Your task to perform on an android device: Open Youtube and go to "Your channel" Image 0: 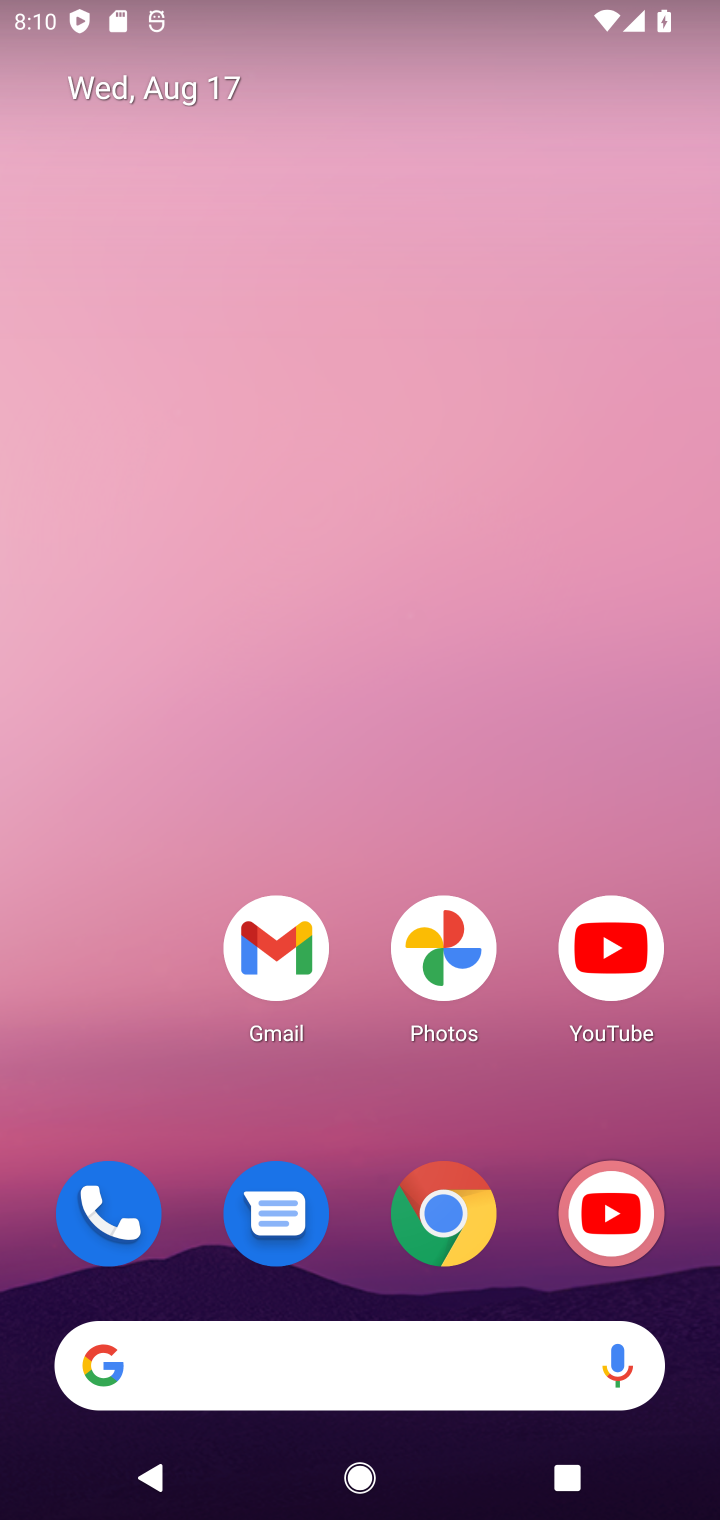
Step 0: click (613, 1244)
Your task to perform on an android device: Open Youtube and go to "Your channel" Image 1: 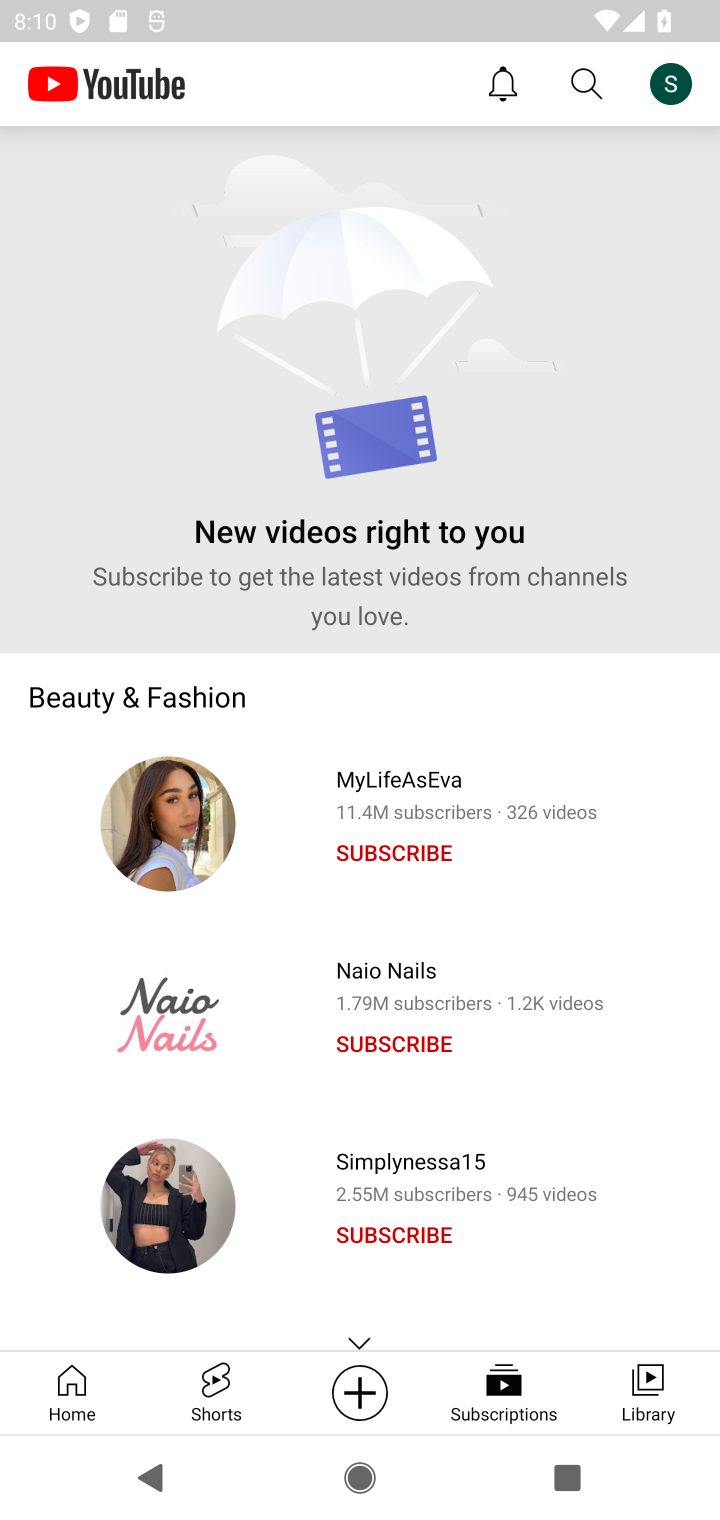
Step 1: click (657, 1394)
Your task to perform on an android device: Open Youtube and go to "Your channel" Image 2: 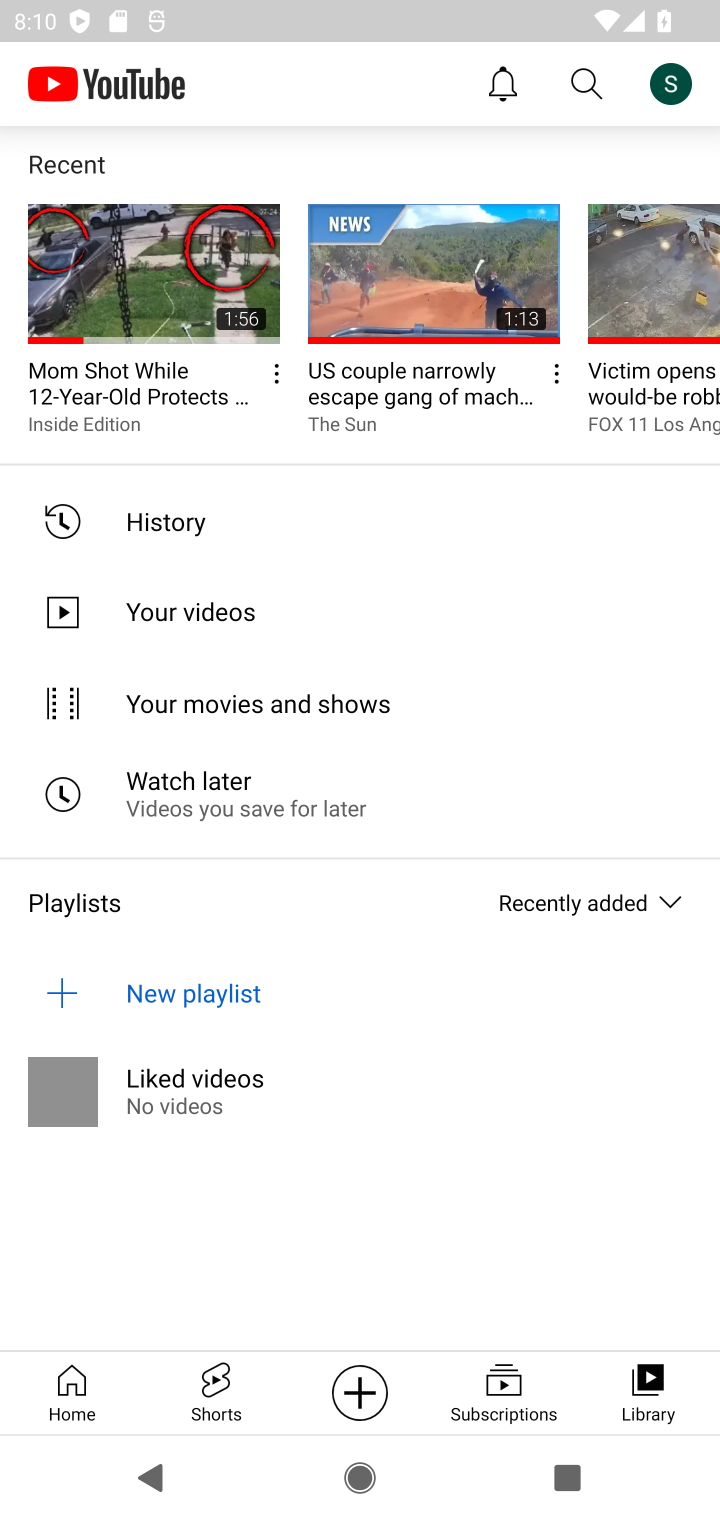
Step 2: click (672, 77)
Your task to perform on an android device: Open Youtube and go to "Your channel" Image 3: 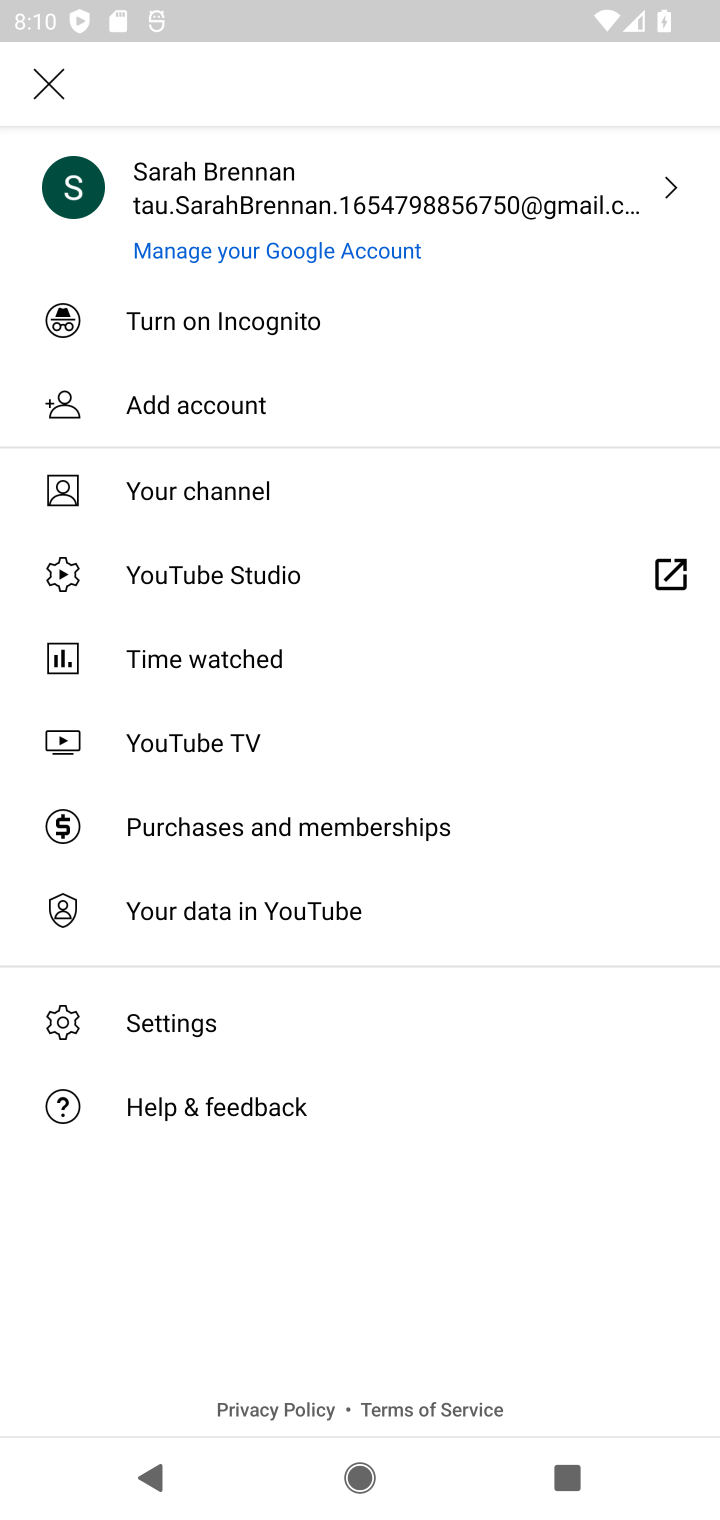
Step 3: click (261, 476)
Your task to perform on an android device: Open Youtube and go to "Your channel" Image 4: 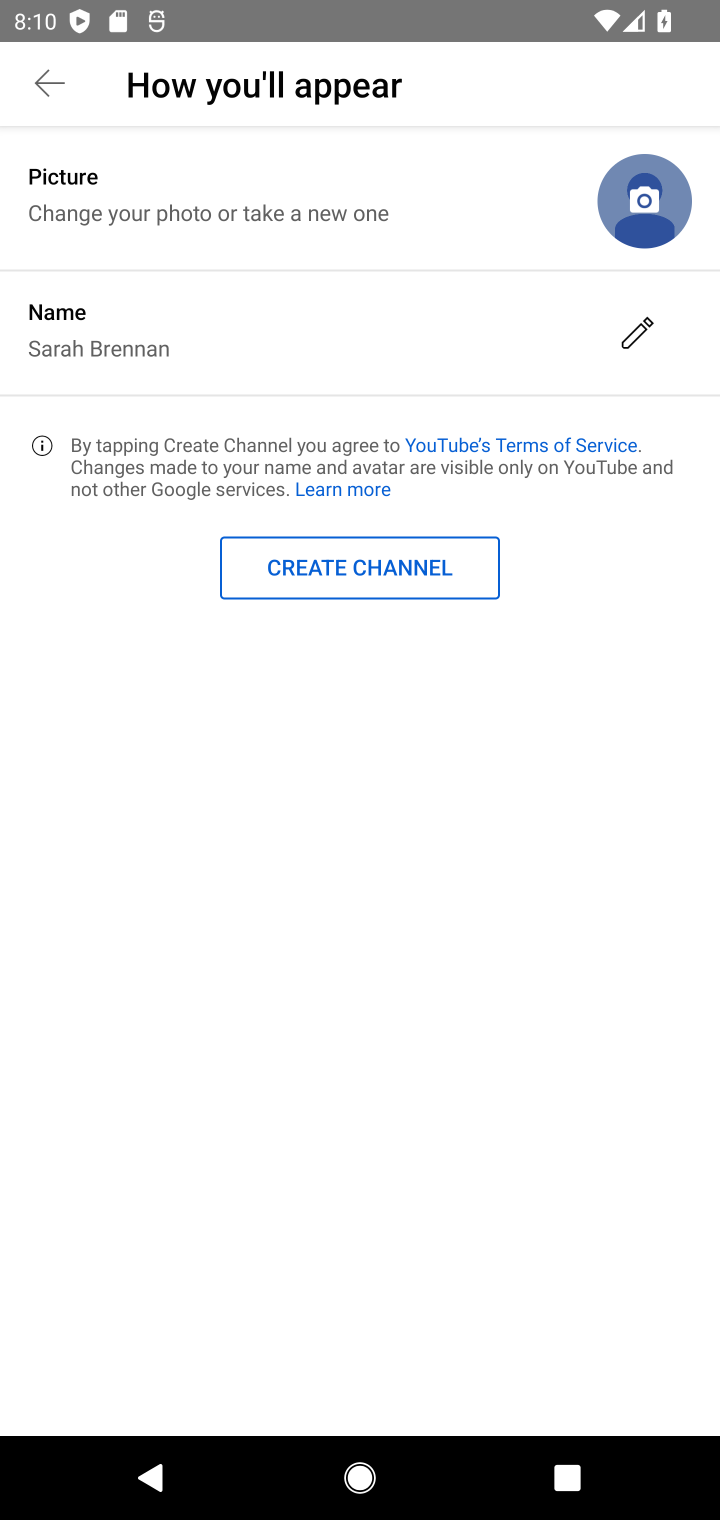
Step 4: task complete